Your task to perform on an android device: Open network settings Image 0: 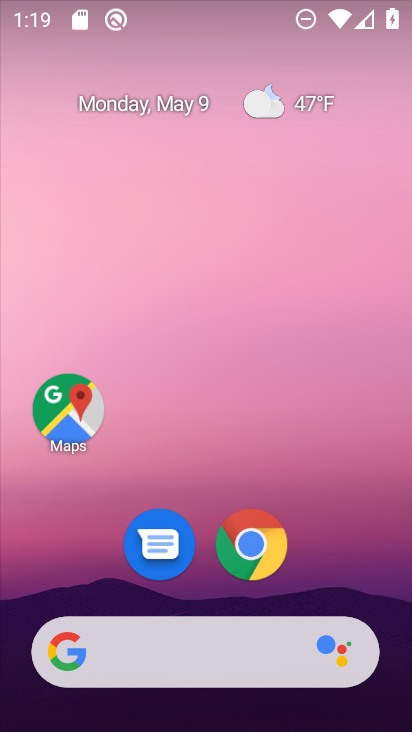
Step 0: drag from (339, 511) to (233, 1)
Your task to perform on an android device: Open network settings Image 1: 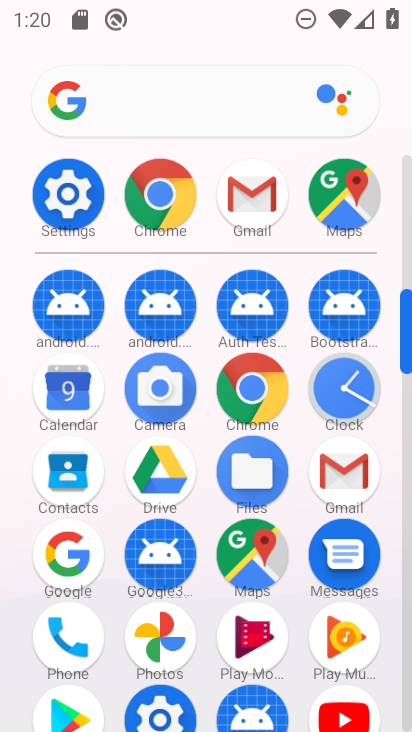
Step 1: click (77, 182)
Your task to perform on an android device: Open network settings Image 2: 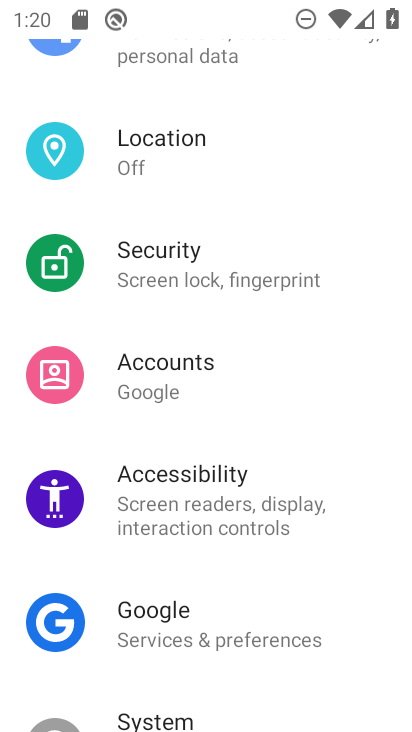
Step 2: drag from (154, 147) to (168, 482)
Your task to perform on an android device: Open network settings Image 3: 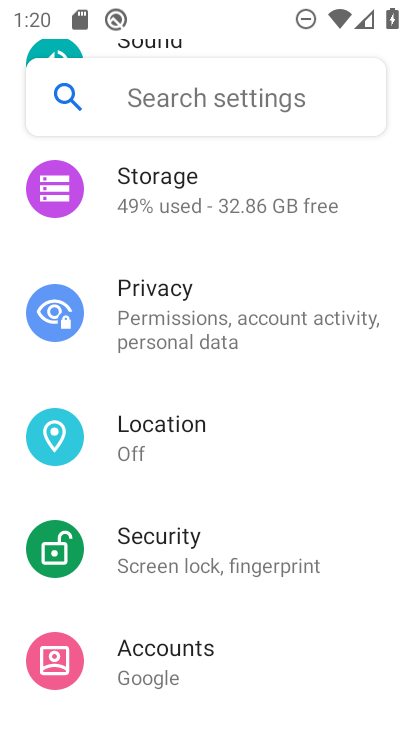
Step 3: drag from (170, 204) to (153, 575)
Your task to perform on an android device: Open network settings Image 4: 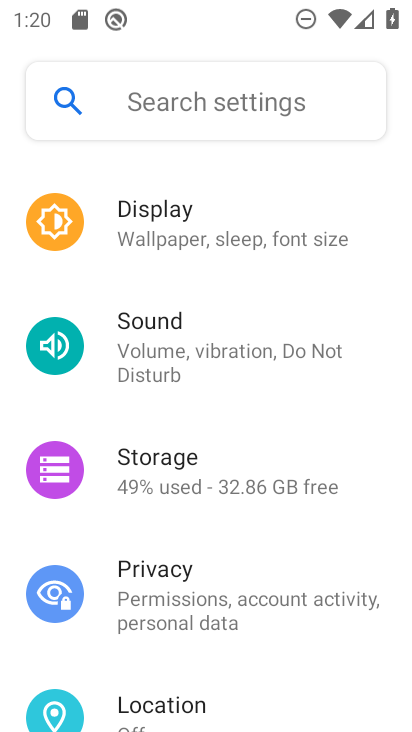
Step 4: drag from (161, 265) to (149, 641)
Your task to perform on an android device: Open network settings Image 5: 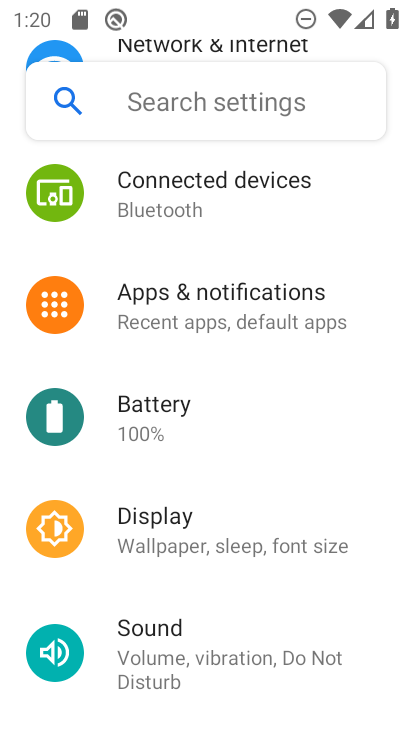
Step 5: drag from (227, 197) to (228, 729)
Your task to perform on an android device: Open network settings Image 6: 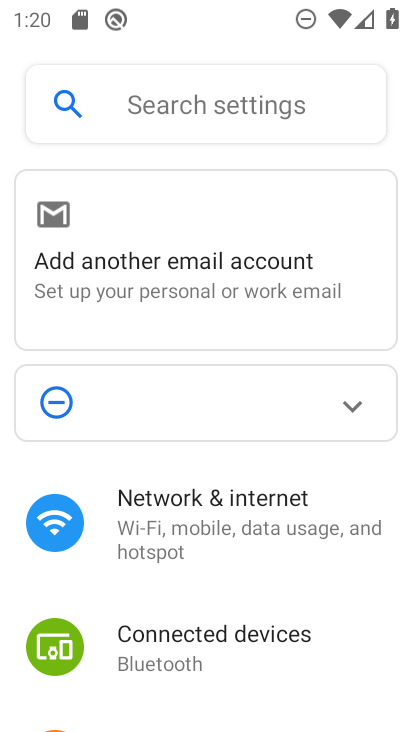
Step 6: click (170, 515)
Your task to perform on an android device: Open network settings Image 7: 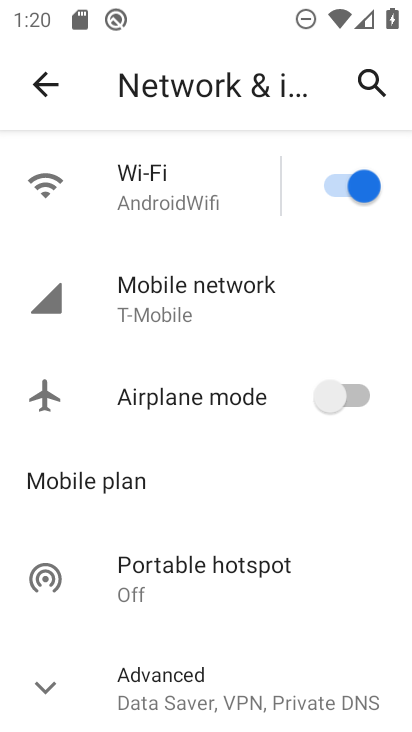
Step 7: click (179, 307)
Your task to perform on an android device: Open network settings Image 8: 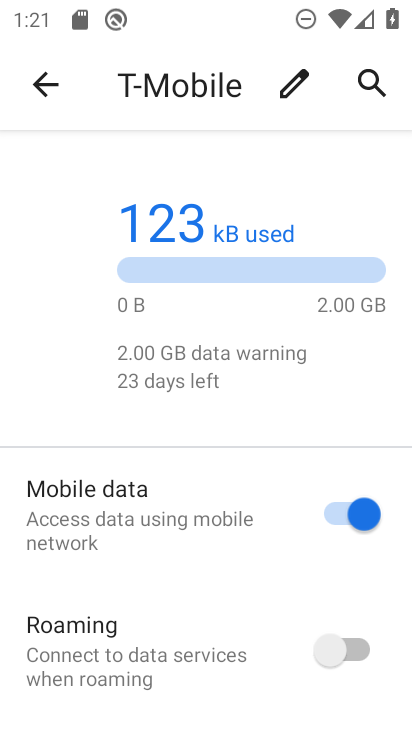
Step 8: task complete